Your task to perform on an android device: check battery use Image 0: 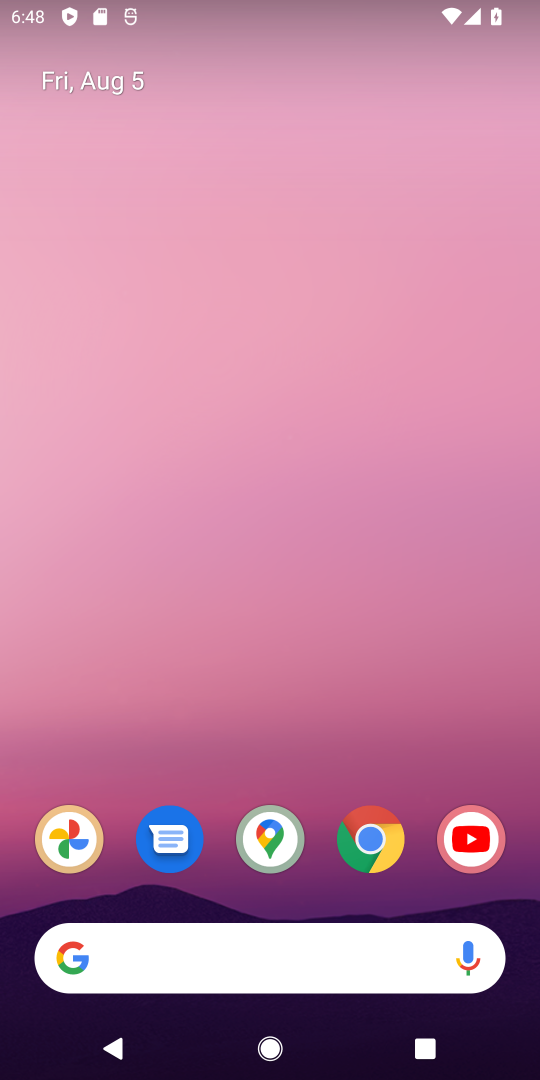
Step 0: drag from (326, 878) to (364, 120)
Your task to perform on an android device: check battery use Image 1: 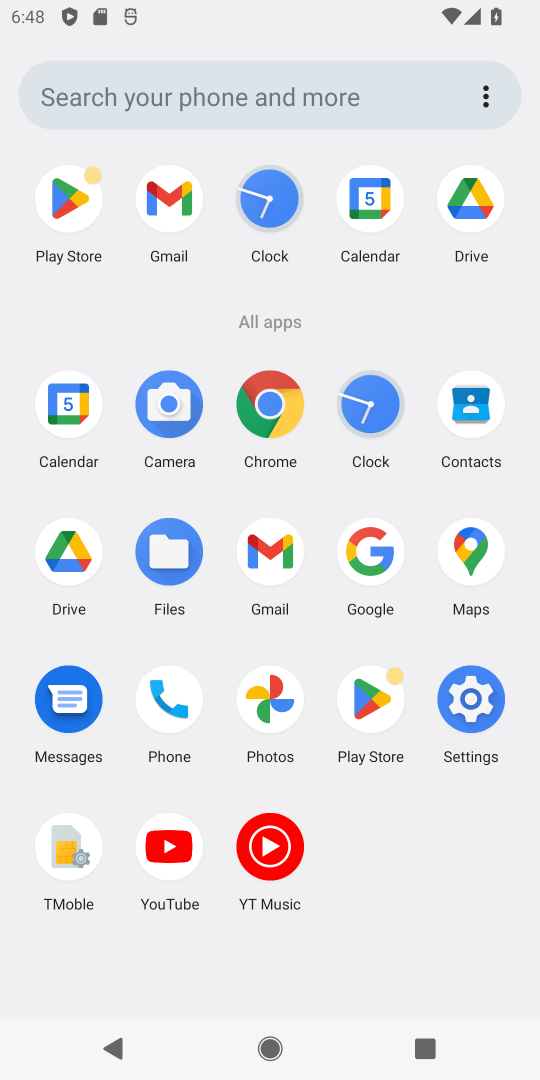
Step 1: click (497, 696)
Your task to perform on an android device: check battery use Image 2: 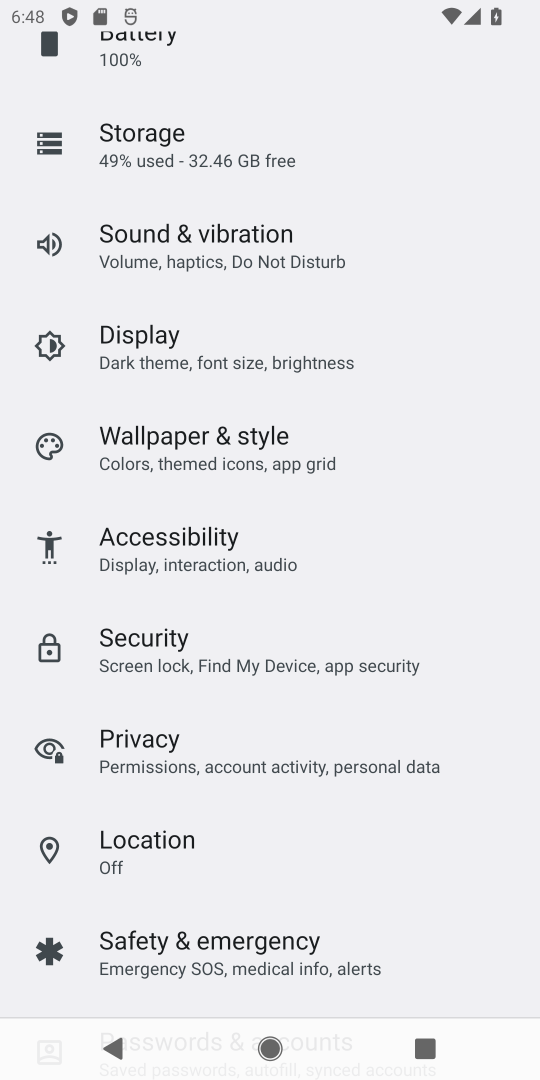
Step 2: drag from (184, 177) to (168, 838)
Your task to perform on an android device: check battery use Image 3: 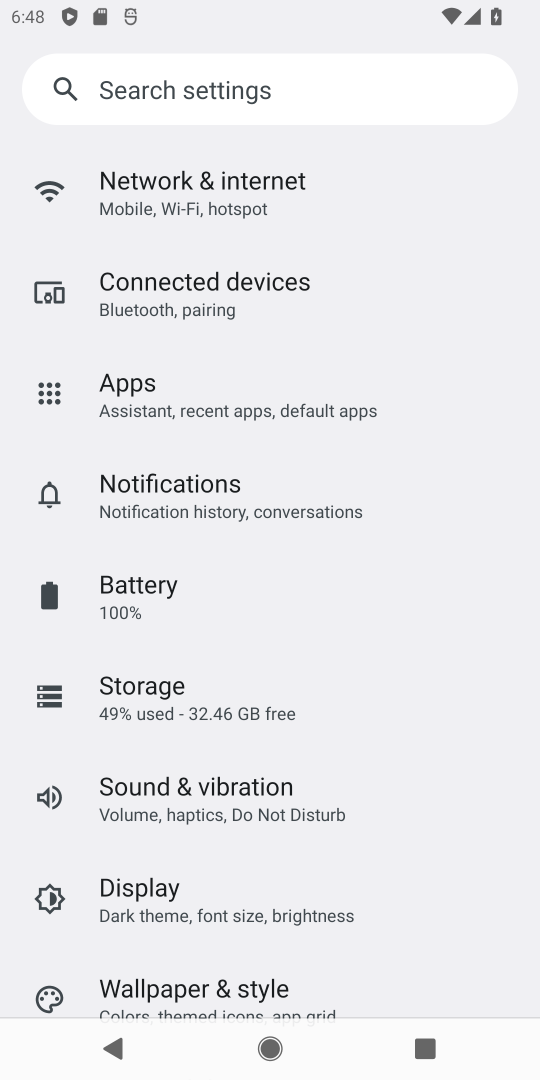
Step 3: click (127, 574)
Your task to perform on an android device: check battery use Image 4: 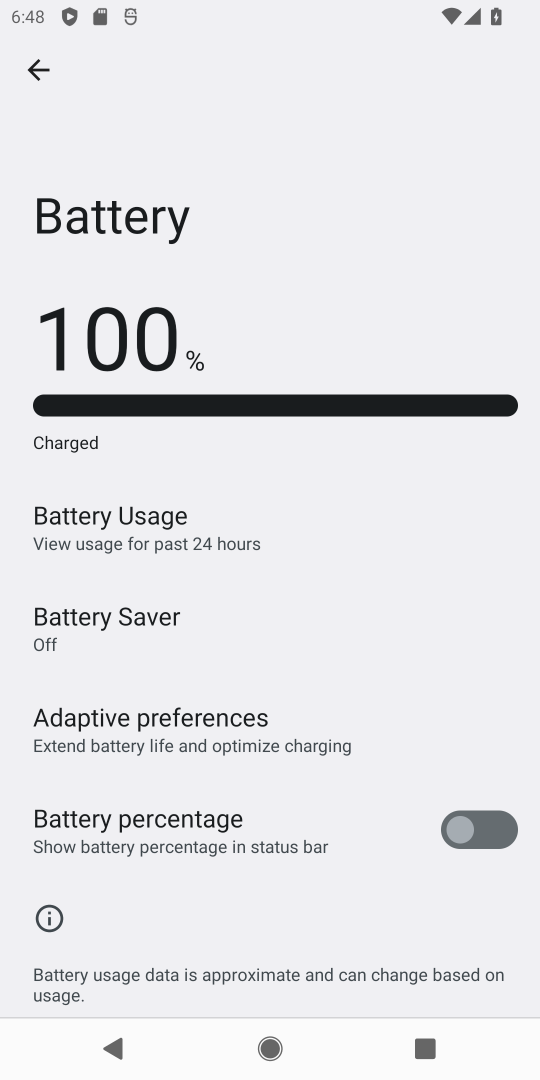
Step 4: drag from (182, 895) to (178, 643)
Your task to perform on an android device: check battery use Image 5: 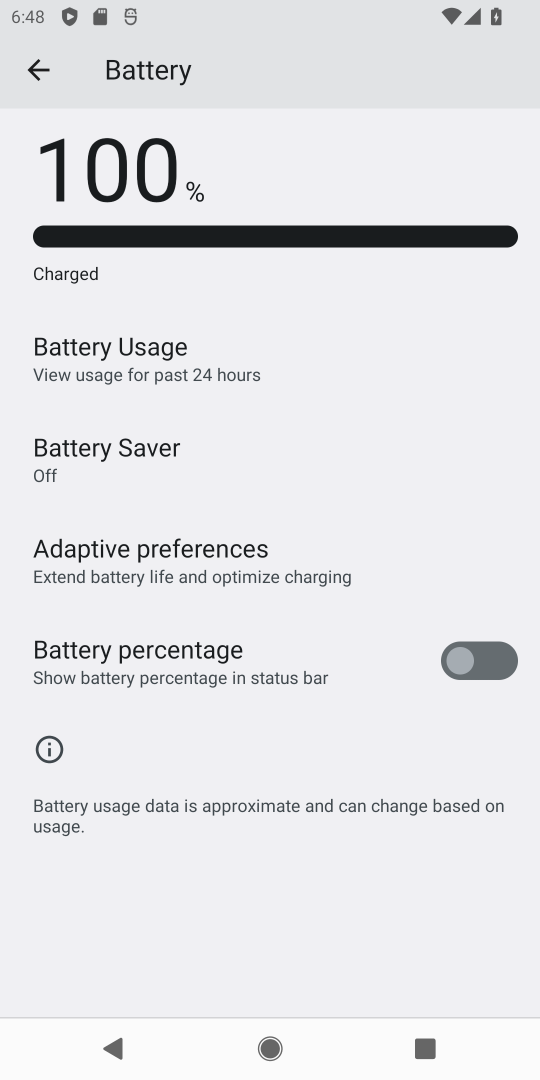
Step 5: click (119, 345)
Your task to perform on an android device: check battery use Image 6: 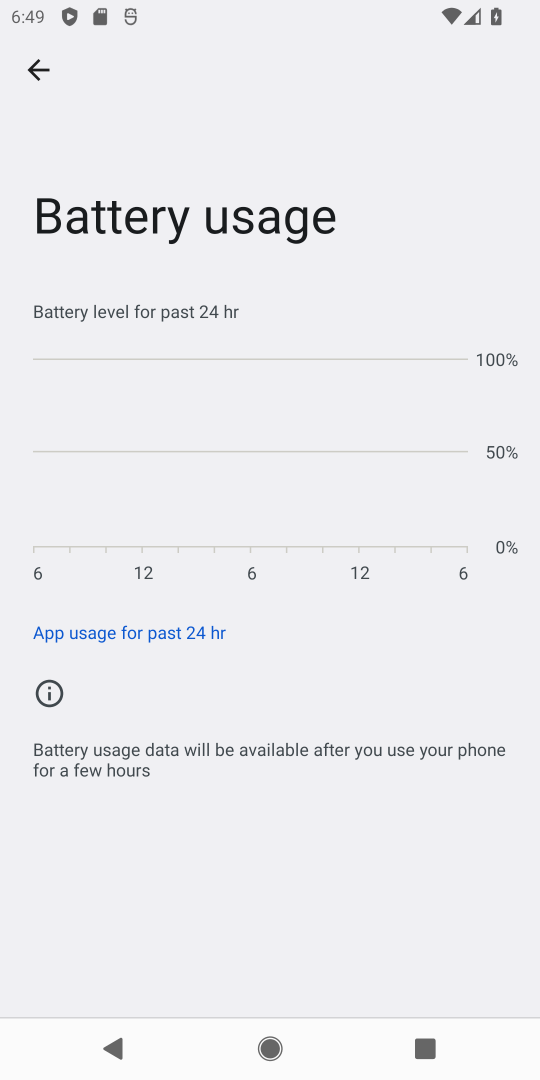
Step 6: task complete